Your task to perform on an android device: Open Chrome and go to the settings page Image 0: 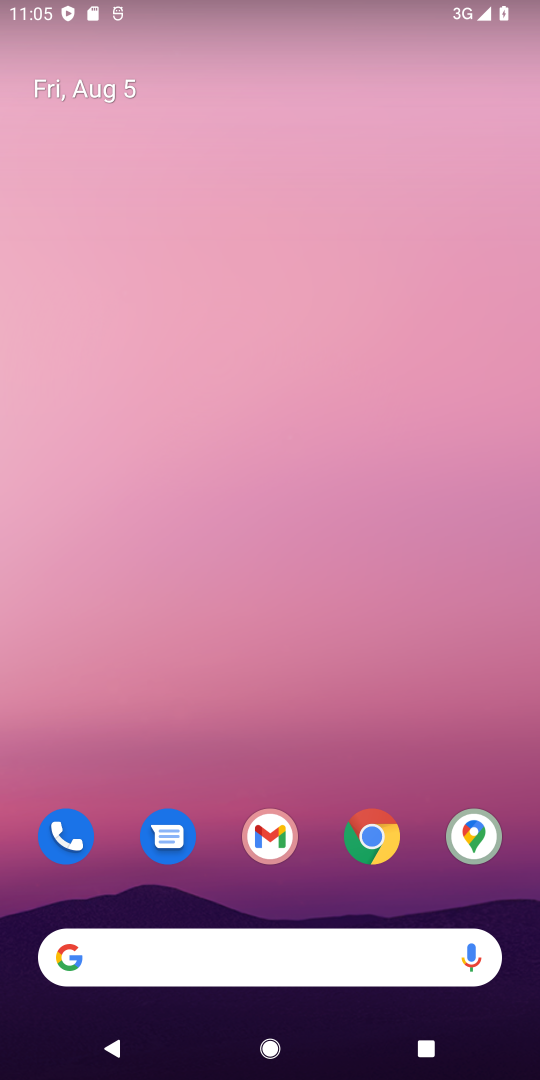
Step 0: drag from (306, 883) to (381, 183)
Your task to perform on an android device: Open Chrome and go to the settings page Image 1: 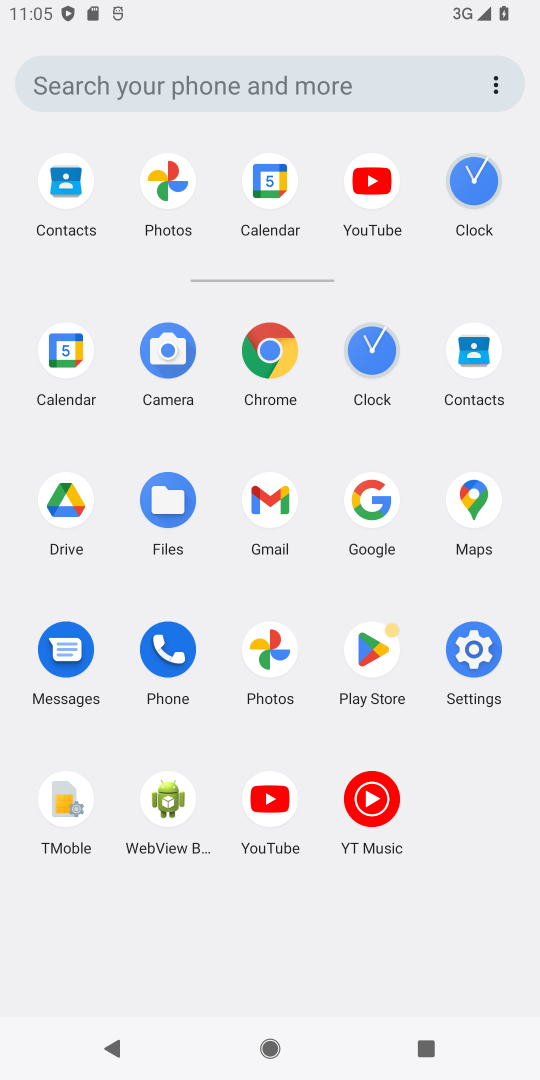
Step 1: click (272, 346)
Your task to perform on an android device: Open Chrome and go to the settings page Image 2: 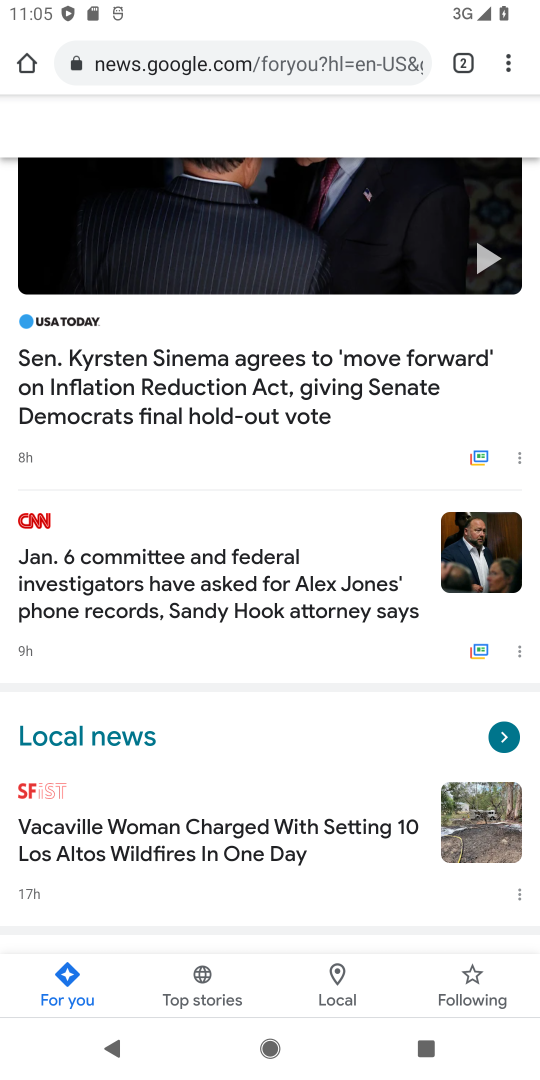
Step 2: task complete